Your task to perform on an android device: Open Yahoo.com Image 0: 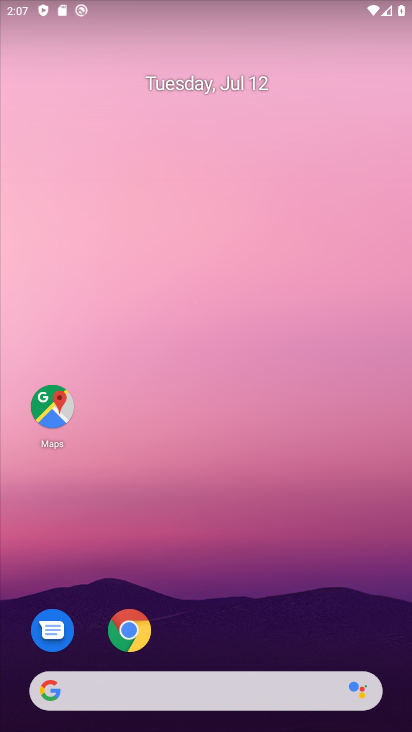
Step 0: click (130, 630)
Your task to perform on an android device: Open Yahoo.com Image 1: 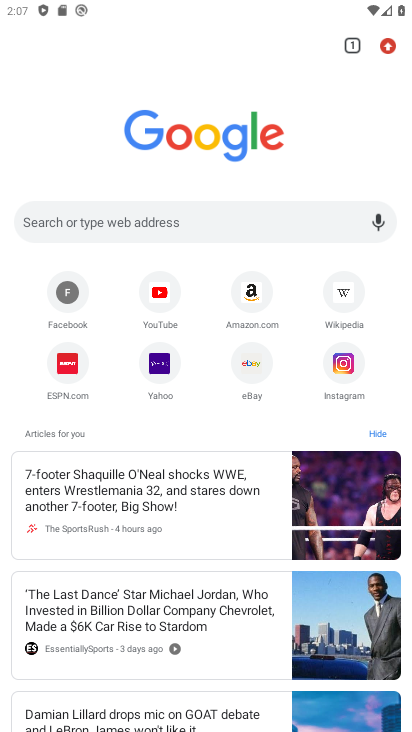
Step 1: click (158, 364)
Your task to perform on an android device: Open Yahoo.com Image 2: 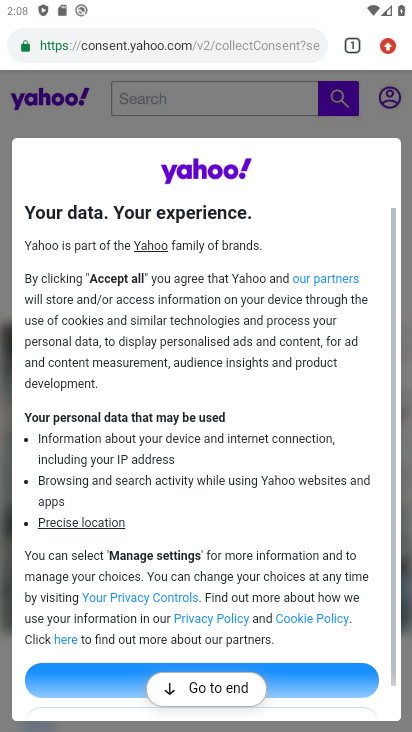
Step 2: click (176, 686)
Your task to perform on an android device: Open Yahoo.com Image 3: 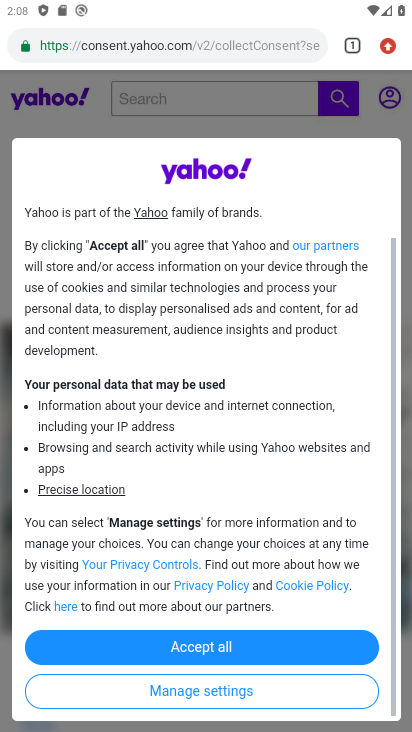
Step 3: click (199, 645)
Your task to perform on an android device: Open Yahoo.com Image 4: 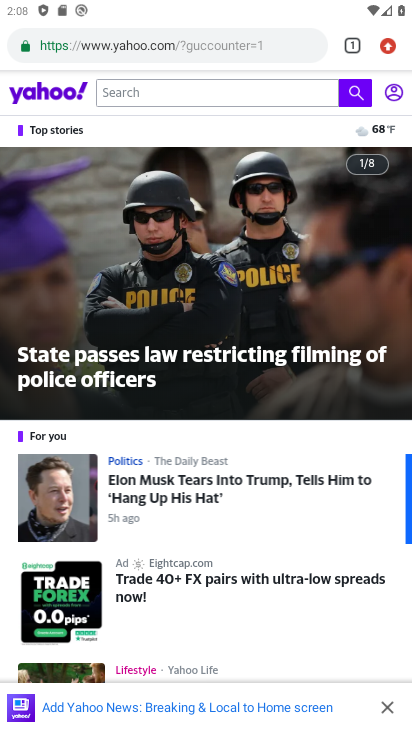
Step 4: task complete